Your task to perform on an android device: Open calendar and show me the third week of next month Image 0: 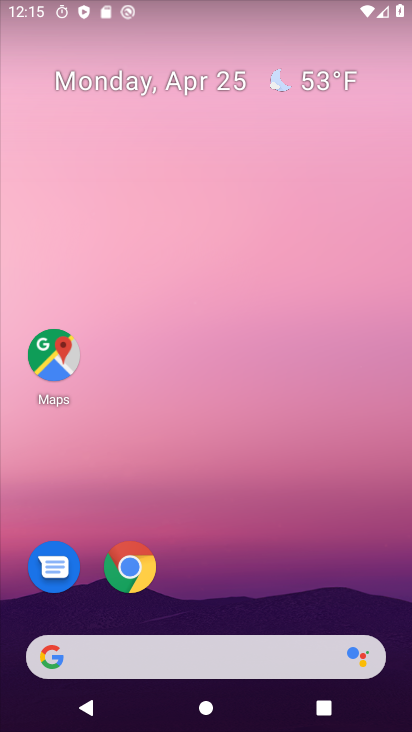
Step 0: drag from (306, 498) to (296, 75)
Your task to perform on an android device: Open calendar and show me the third week of next month Image 1: 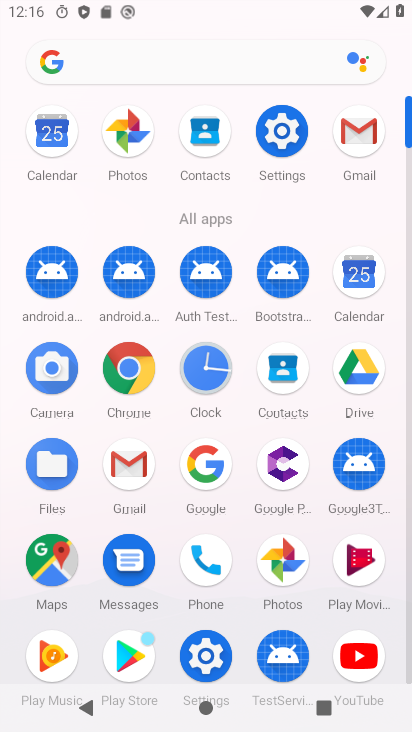
Step 1: click (362, 274)
Your task to perform on an android device: Open calendar and show me the third week of next month Image 2: 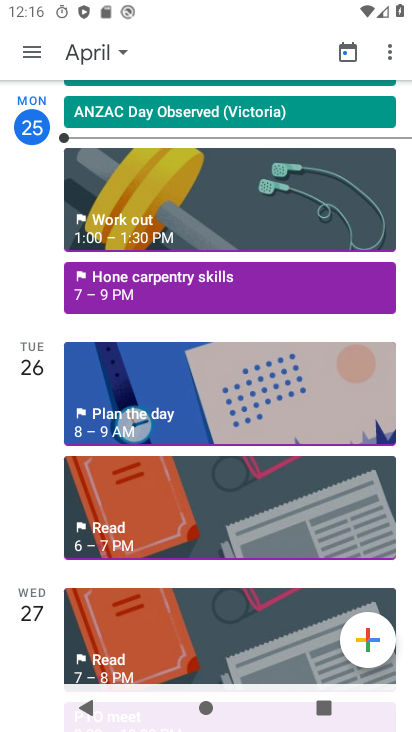
Step 2: click (30, 51)
Your task to perform on an android device: Open calendar and show me the third week of next month Image 3: 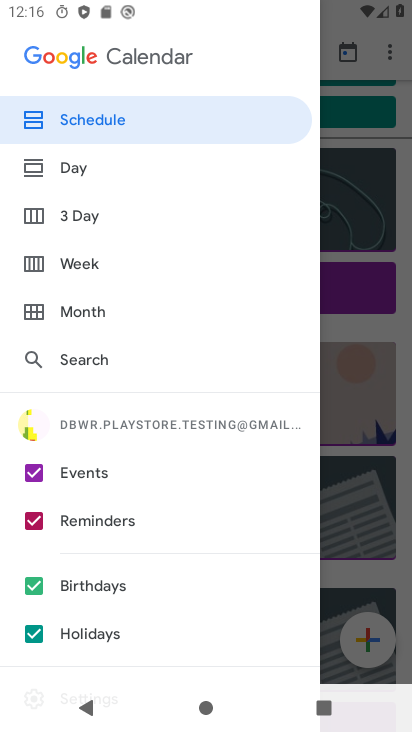
Step 3: click (72, 254)
Your task to perform on an android device: Open calendar and show me the third week of next month Image 4: 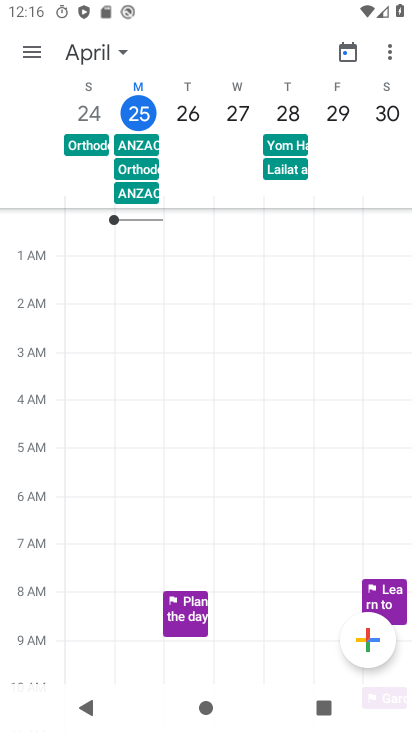
Step 4: task complete